Your task to perform on an android device: see tabs open on other devices in the chrome app Image 0: 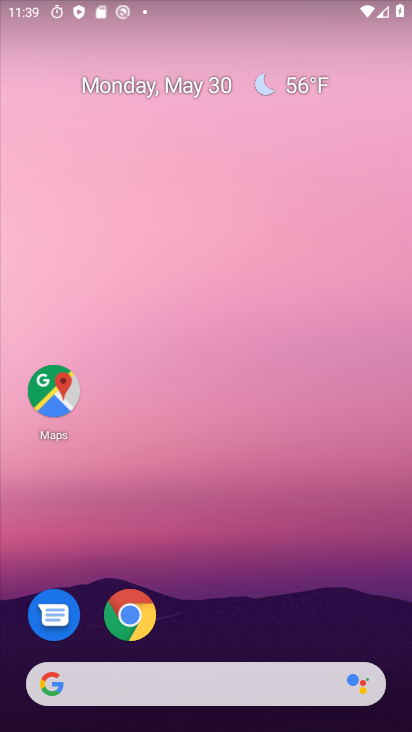
Step 0: click (113, 626)
Your task to perform on an android device: see tabs open on other devices in the chrome app Image 1: 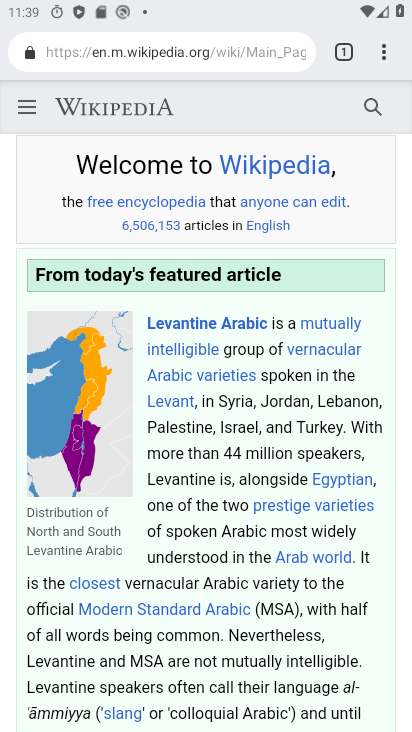
Step 1: task complete